Your task to perform on an android device: find photos in the google photos app Image 0: 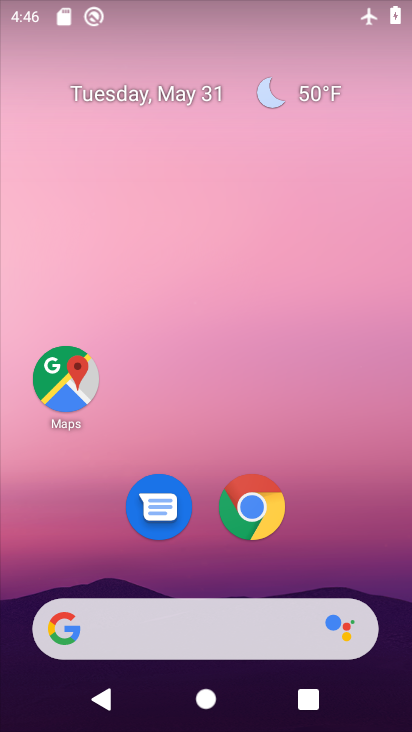
Step 0: drag from (307, 508) to (274, 48)
Your task to perform on an android device: find photos in the google photos app Image 1: 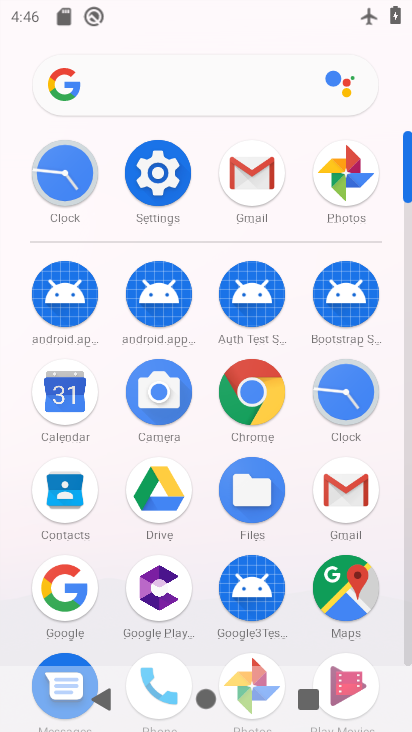
Step 1: click (339, 167)
Your task to perform on an android device: find photos in the google photos app Image 2: 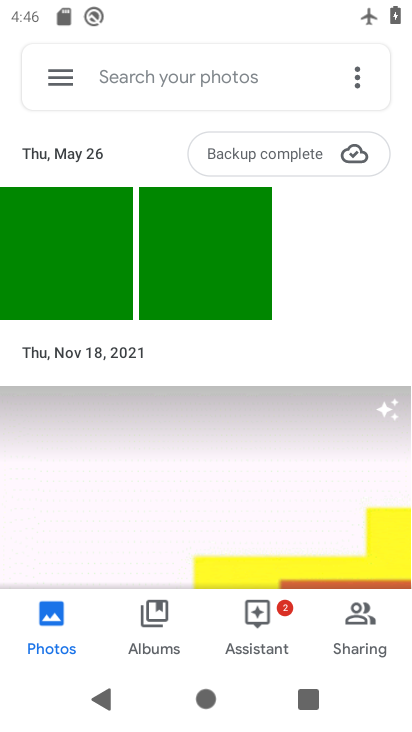
Step 2: task complete